Your task to perform on an android device: find which apps use the phone's location Image 0: 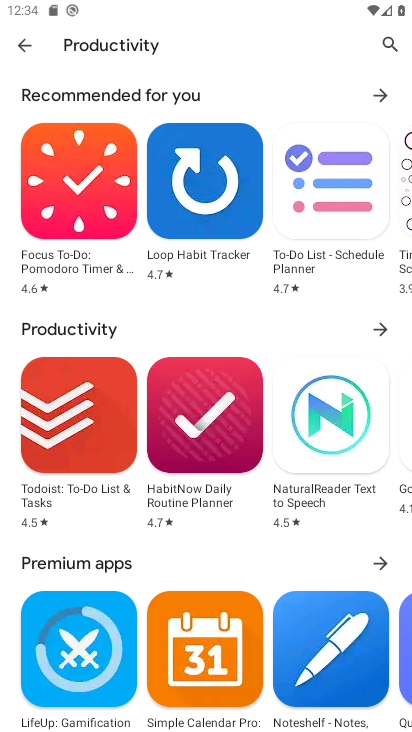
Step 0: press home button
Your task to perform on an android device: find which apps use the phone's location Image 1: 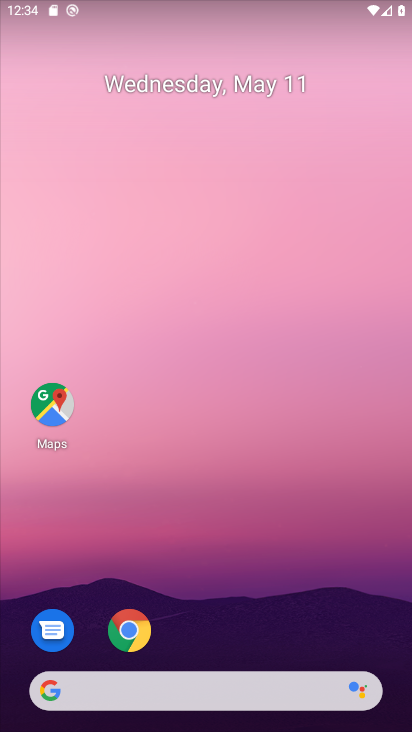
Step 1: drag from (221, 593) to (239, 2)
Your task to perform on an android device: find which apps use the phone's location Image 2: 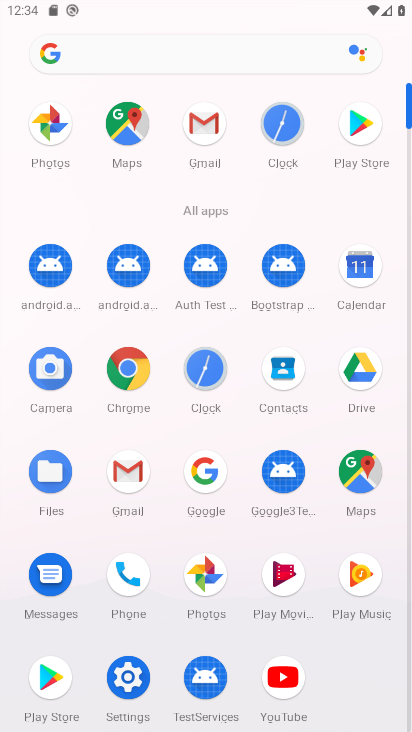
Step 2: click (104, 683)
Your task to perform on an android device: find which apps use the phone's location Image 3: 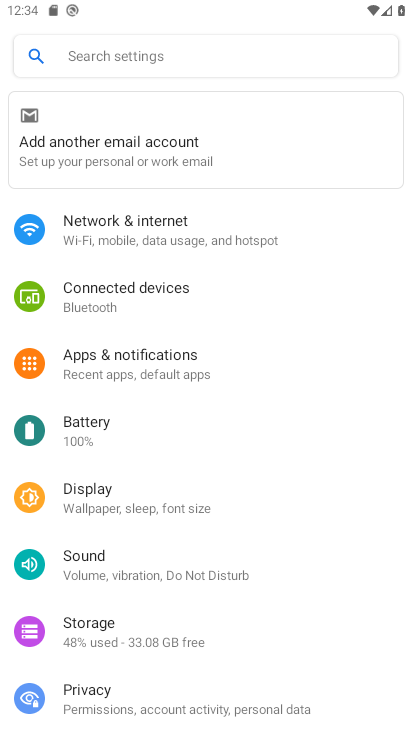
Step 3: drag from (179, 629) to (183, 356)
Your task to perform on an android device: find which apps use the phone's location Image 4: 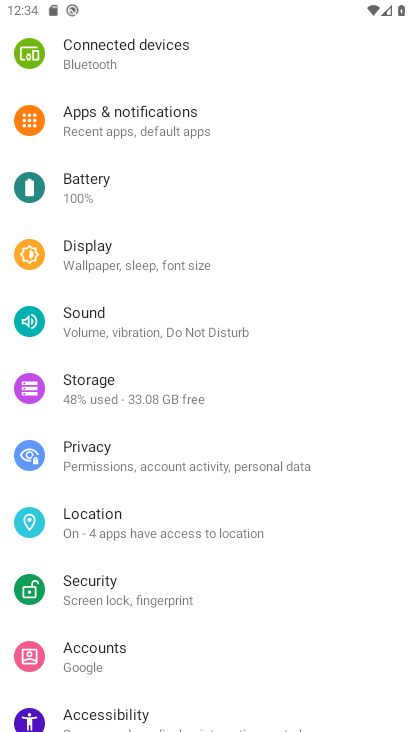
Step 4: click (92, 509)
Your task to perform on an android device: find which apps use the phone's location Image 5: 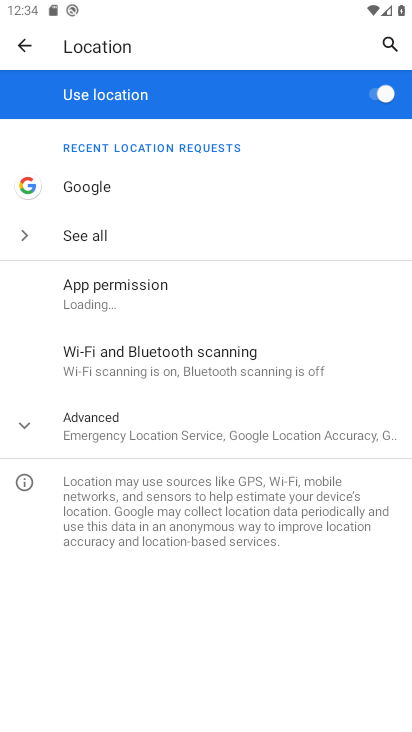
Step 5: click (149, 300)
Your task to perform on an android device: find which apps use the phone's location Image 6: 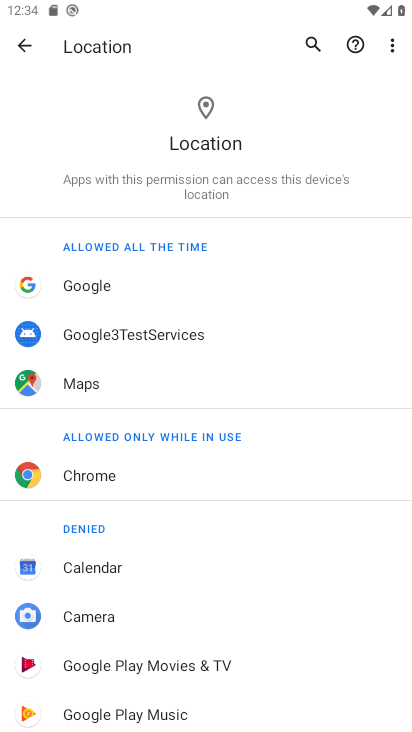
Step 6: task complete